Your task to perform on an android device: Go to sound settings Image 0: 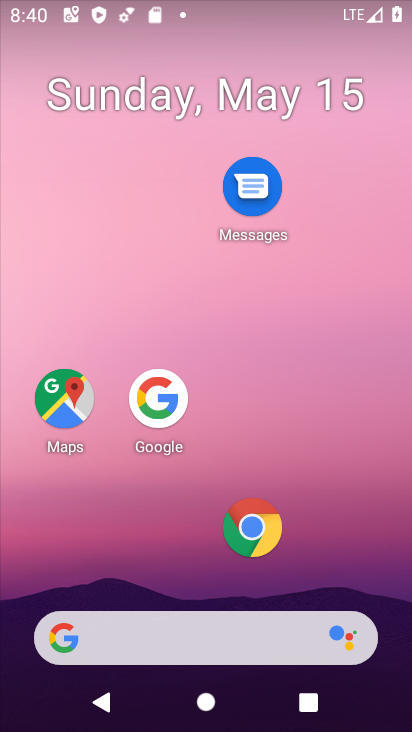
Step 0: press home button
Your task to perform on an android device: Go to sound settings Image 1: 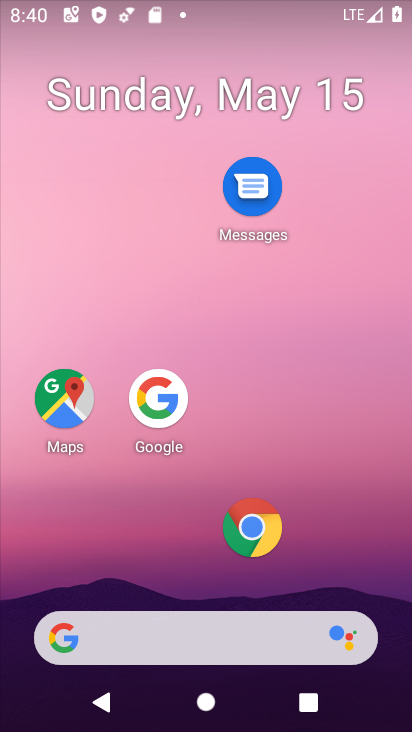
Step 1: drag from (152, 648) to (242, 242)
Your task to perform on an android device: Go to sound settings Image 2: 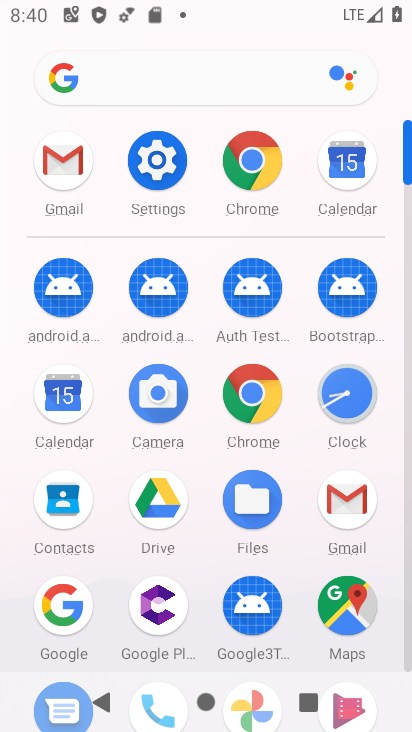
Step 2: click (162, 169)
Your task to perform on an android device: Go to sound settings Image 3: 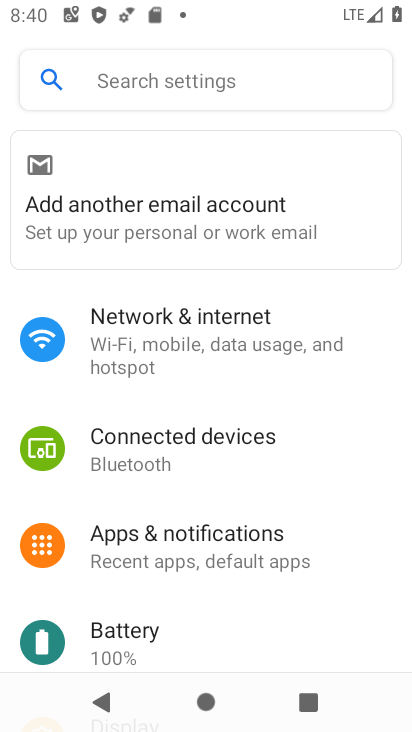
Step 3: drag from (146, 622) to (296, 153)
Your task to perform on an android device: Go to sound settings Image 4: 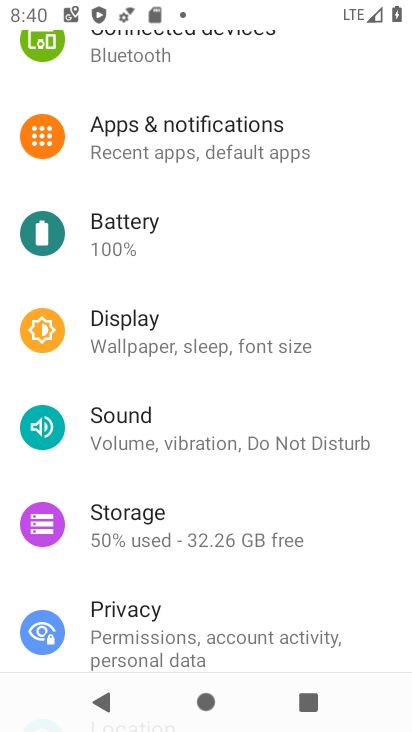
Step 4: click (129, 430)
Your task to perform on an android device: Go to sound settings Image 5: 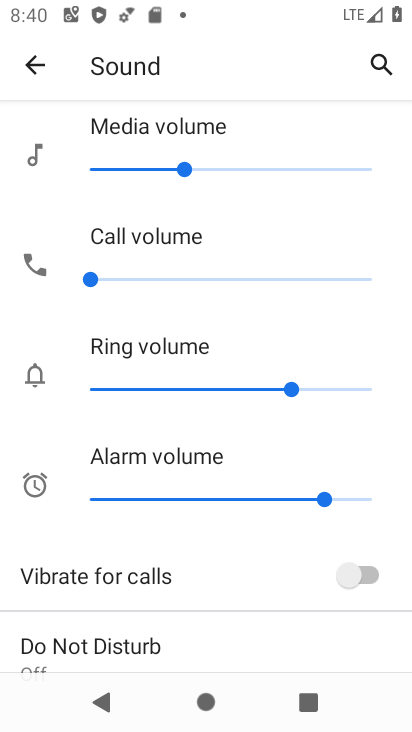
Step 5: task complete